Your task to perform on an android device: Go to Amazon Image 0: 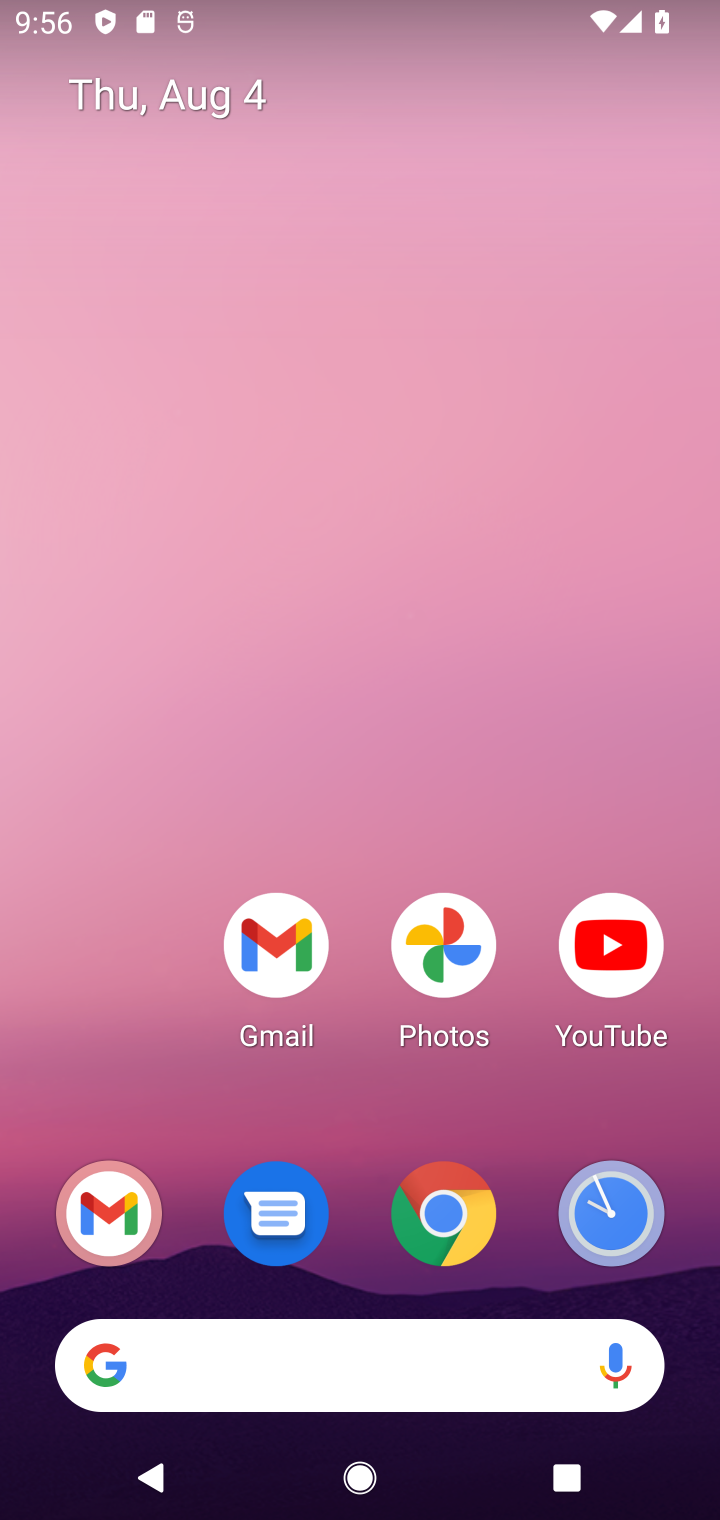
Step 0: click (448, 1209)
Your task to perform on an android device: Go to Amazon Image 1: 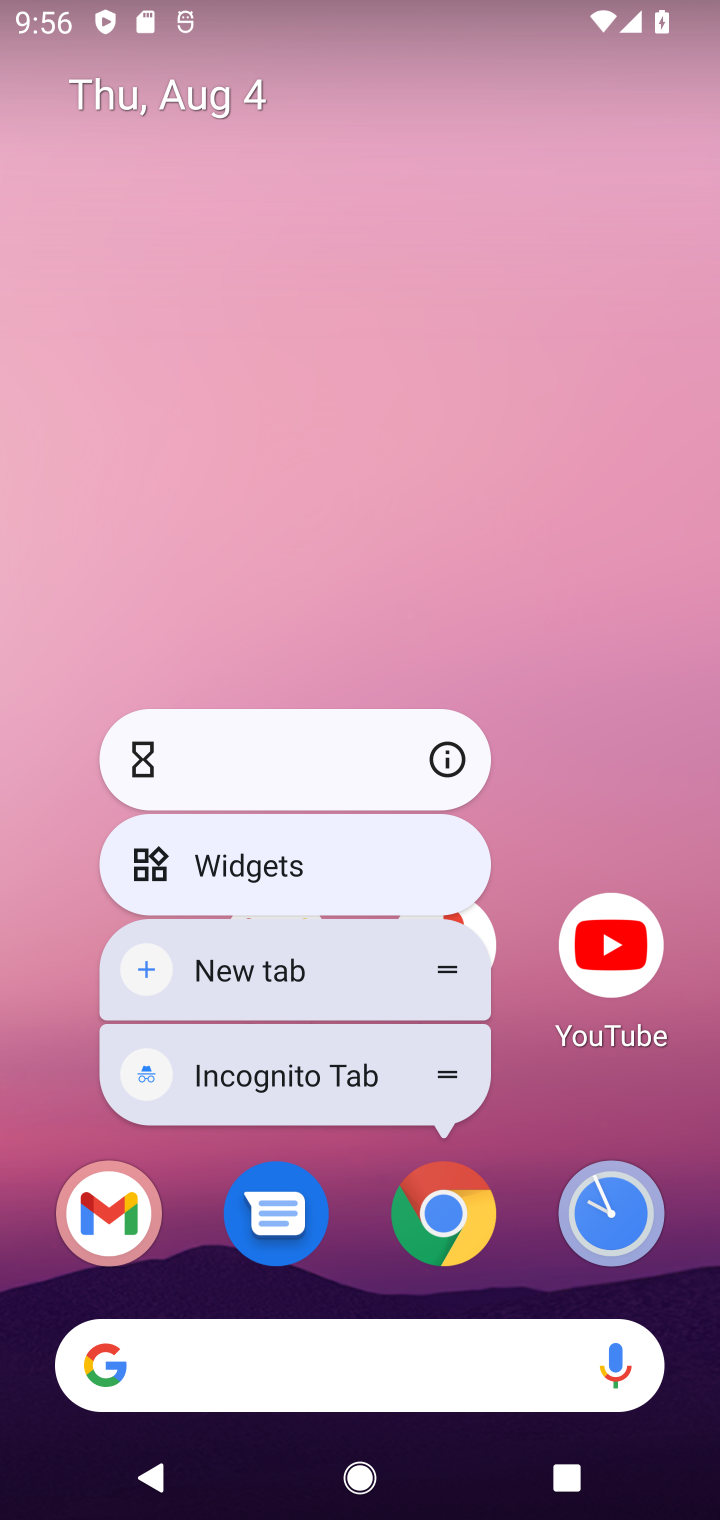
Step 1: click (418, 1226)
Your task to perform on an android device: Go to Amazon Image 2: 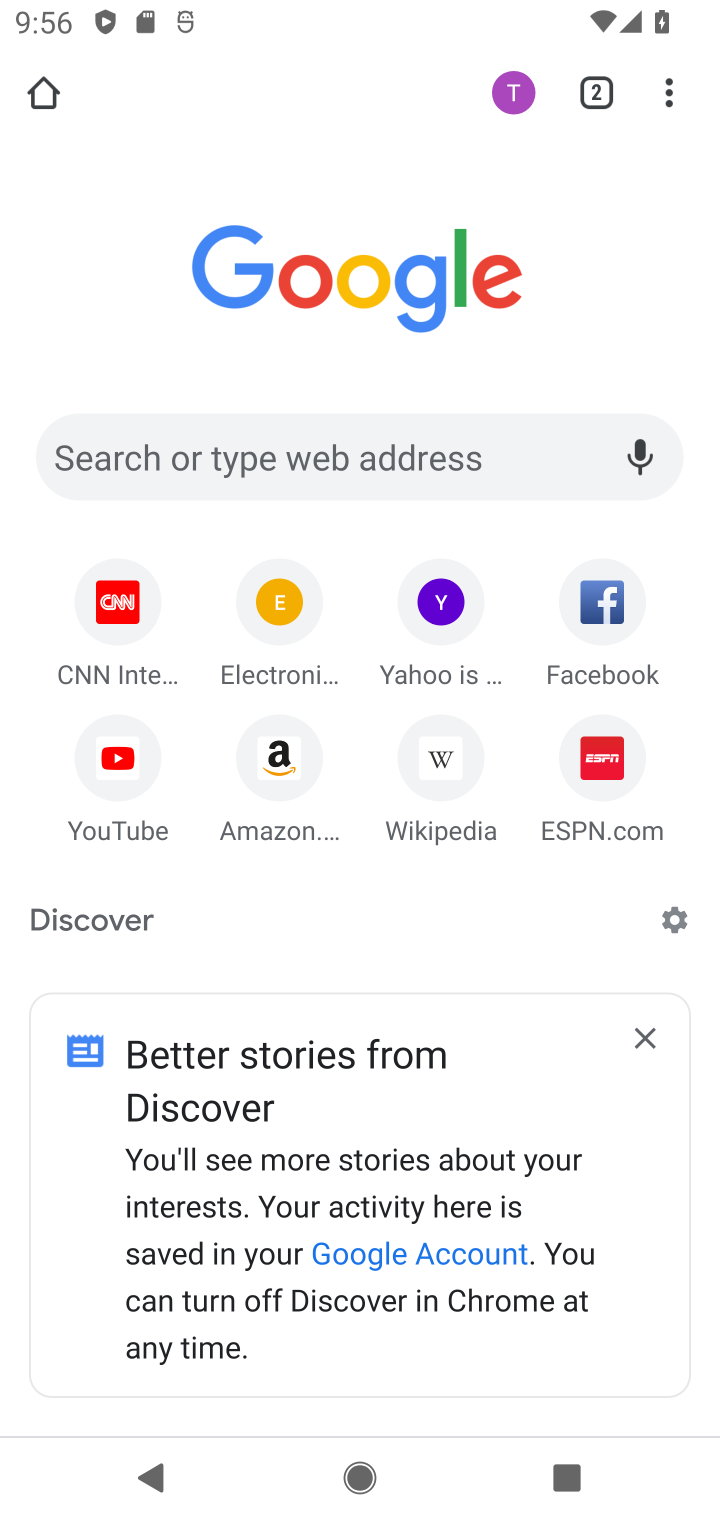
Step 2: click (288, 800)
Your task to perform on an android device: Go to Amazon Image 3: 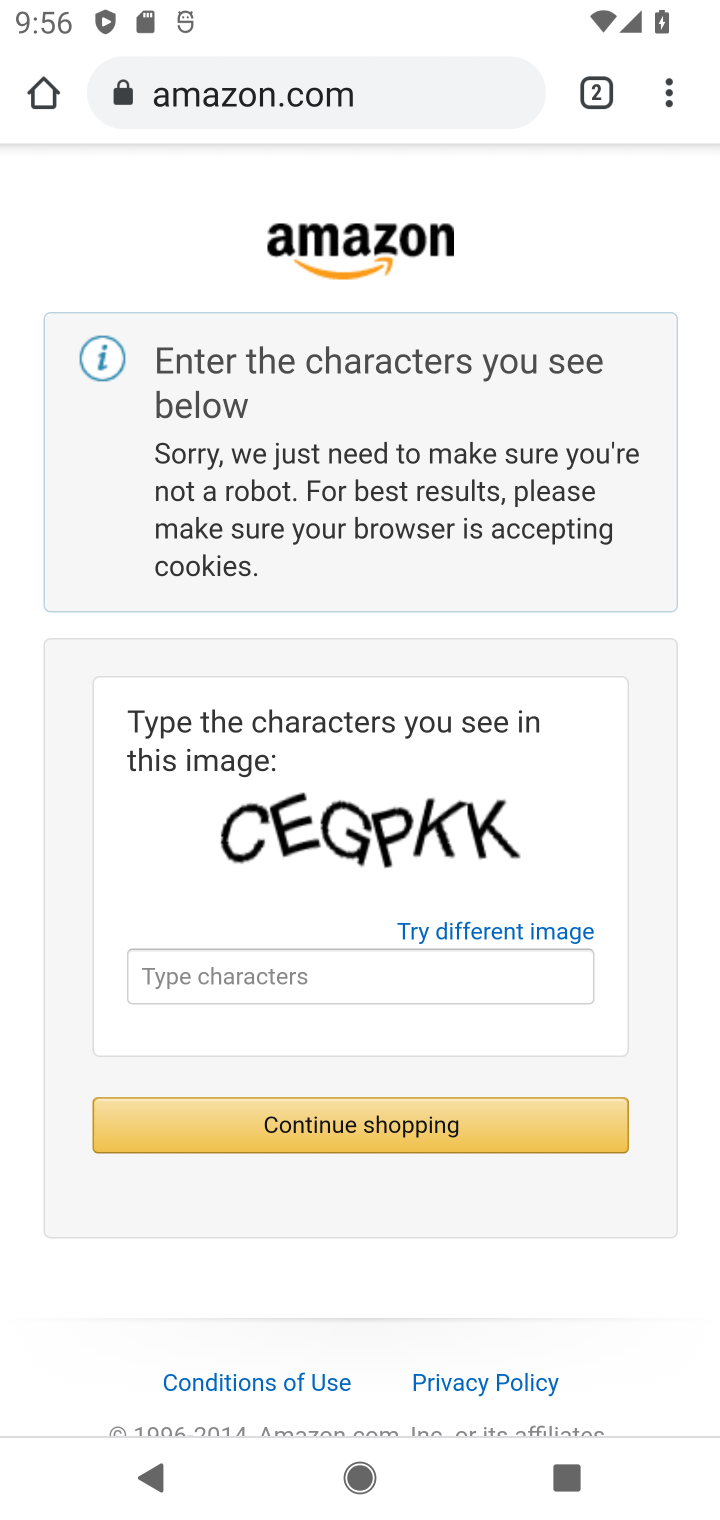
Step 3: click (469, 1115)
Your task to perform on an android device: Go to Amazon Image 4: 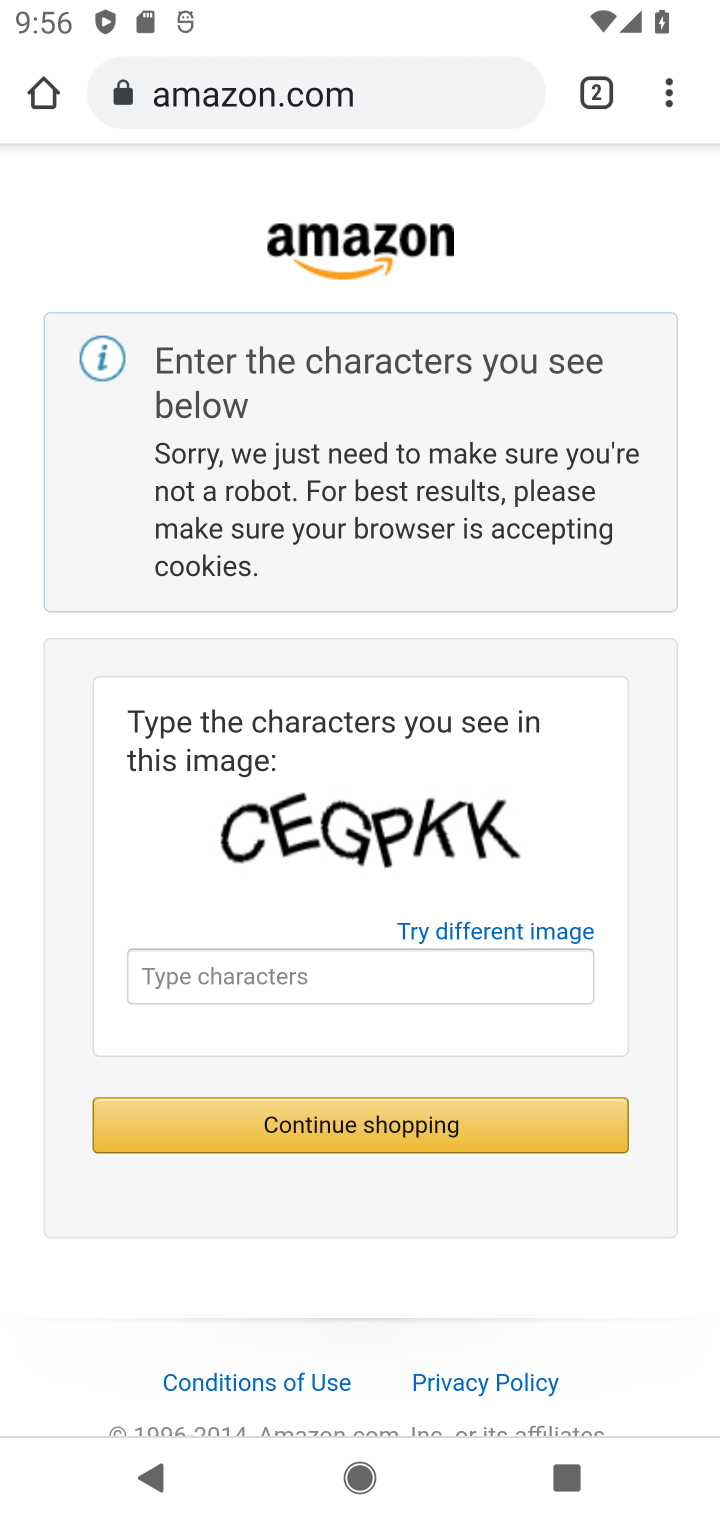
Step 4: task complete